Your task to perform on an android device: change your default location settings in chrome Image 0: 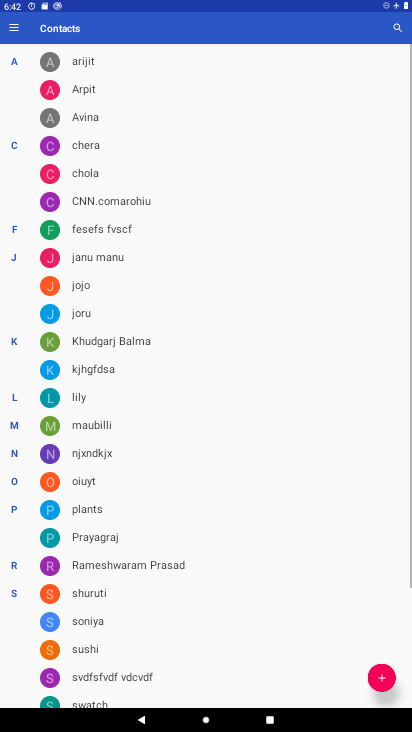
Step 0: press home button
Your task to perform on an android device: change your default location settings in chrome Image 1: 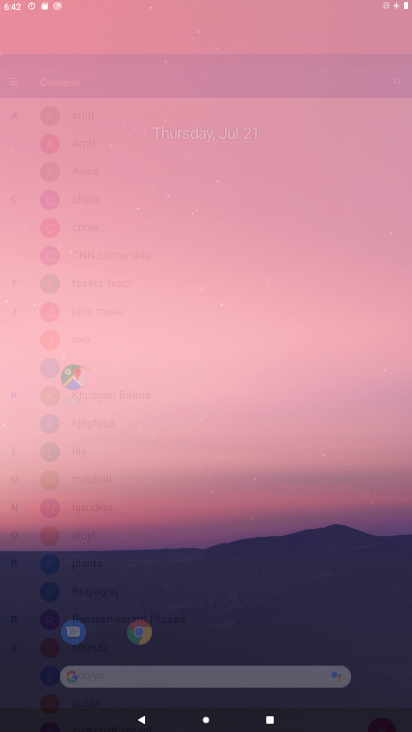
Step 1: drag from (345, 516) to (230, 6)
Your task to perform on an android device: change your default location settings in chrome Image 2: 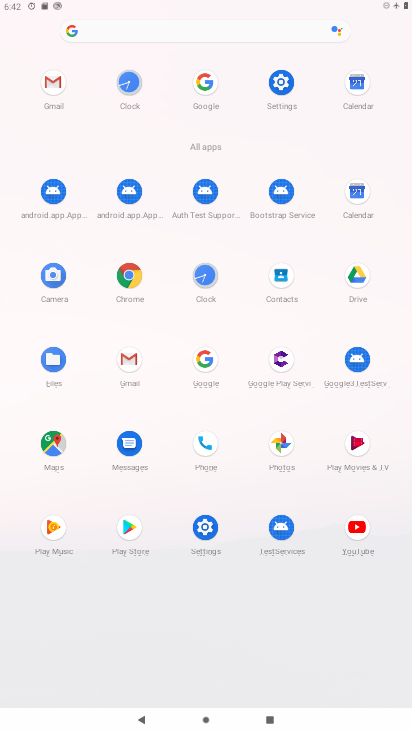
Step 2: click (129, 283)
Your task to perform on an android device: change your default location settings in chrome Image 3: 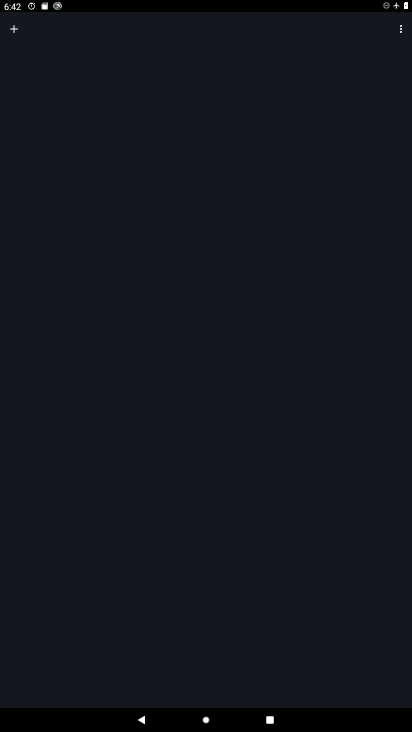
Step 3: click (399, 28)
Your task to perform on an android device: change your default location settings in chrome Image 4: 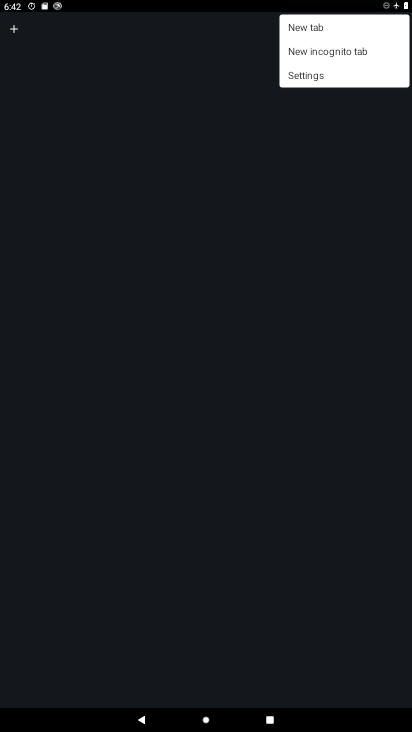
Step 4: click (308, 78)
Your task to perform on an android device: change your default location settings in chrome Image 5: 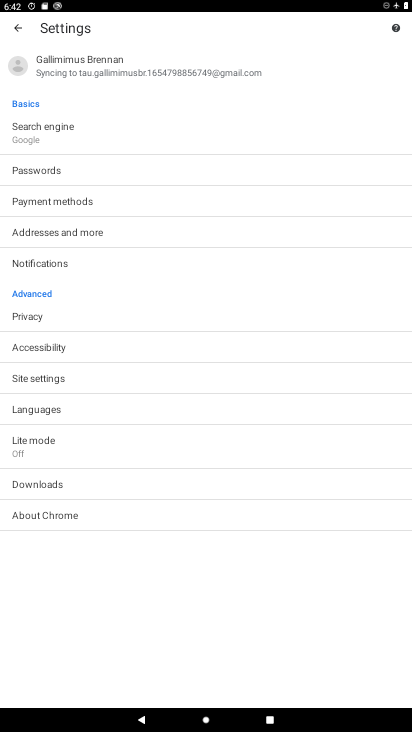
Step 5: click (43, 129)
Your task to perform on an android device: change your default location settings in chrome Image 6: 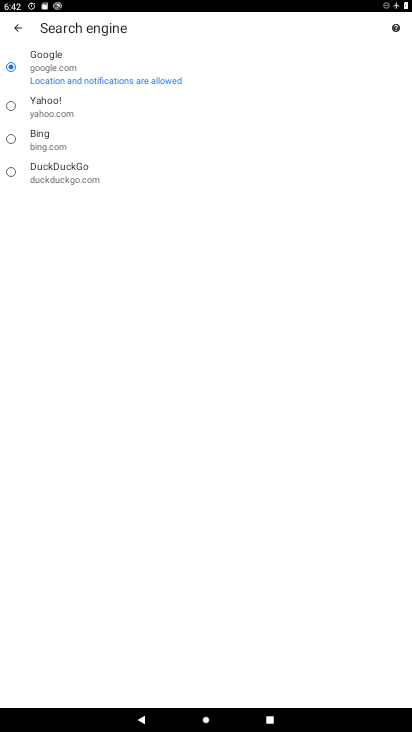
Step 6: click (39, 139)
Your task to perform on an android device: change your default location settings in chrome Image 7: 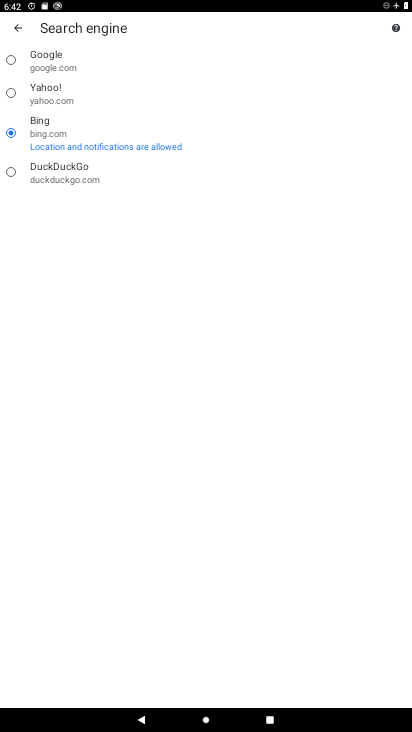
Step 7: task complete